Your task to perform on an android device: Open the phone app and click the voicemail tab. Image 0: 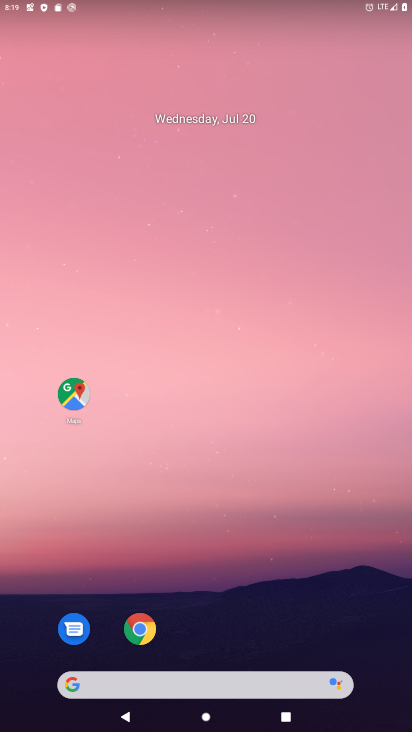
Step 0: drag from (193, 606) to (136, 272)
Your task to perform on an android device: Open the phone app and click the voicemail tab. Image 1: 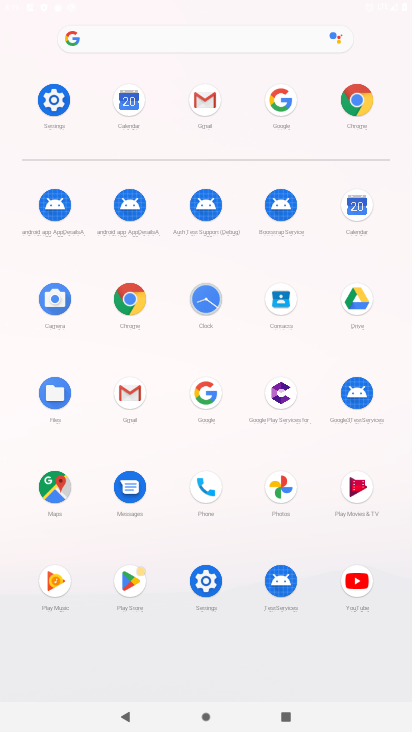
Step 1: click (207, 472)
Your task to perform on an android device: Open the phone app and click the voicemail tab. Image 2: 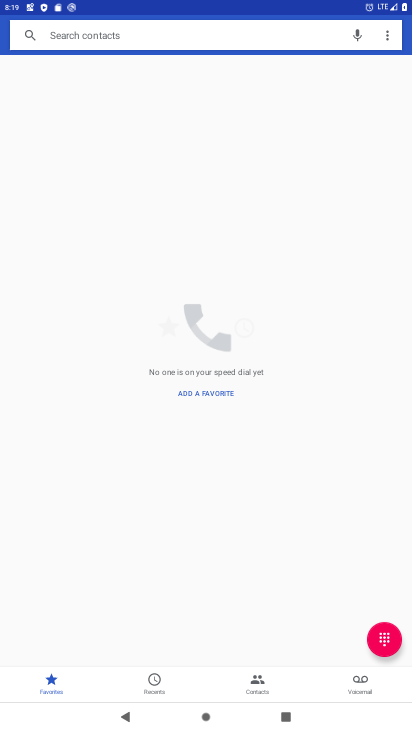
Step 2: click (360, 680)
Your task to perform on an android device: Open the phone app and click the voicemail tab. Image 3: 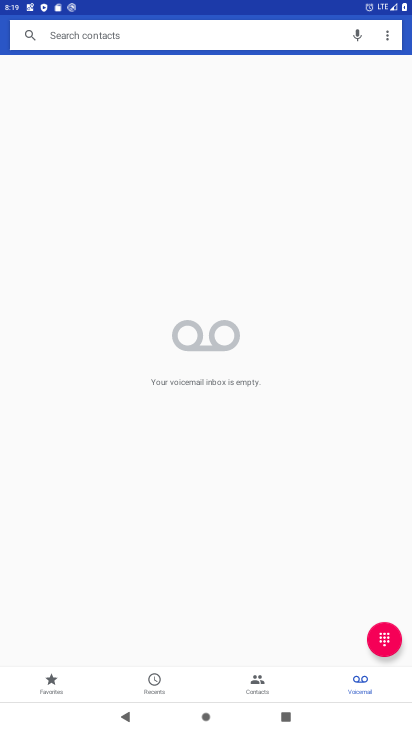
Step 3: task complete